Your task to perform on an android device: Search for pizza restaurants on Maps Image 0: 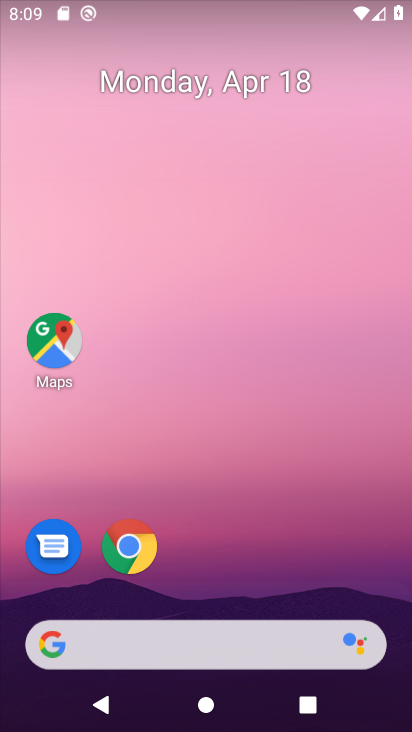
Step 0: click (68, 326)
Your task to perform on an android device: Search for pizza restaurants on Maps Image 1: 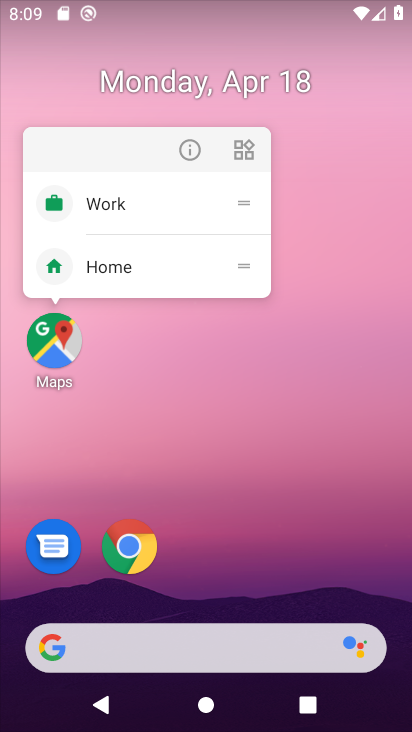
Step 1: click (68, 326)
Your task to perform on an android device: Search for pizza restaurants on Maps Image 2: 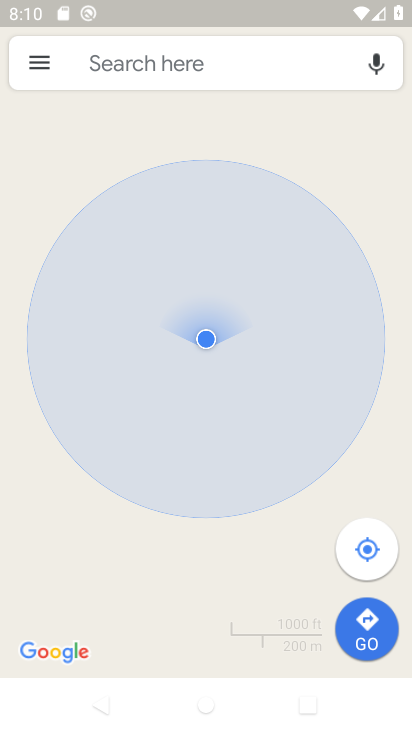
Step 2: click (197, 70)
Your task to perform on an android device: Search for pizza restaurants on Maps Image 3: 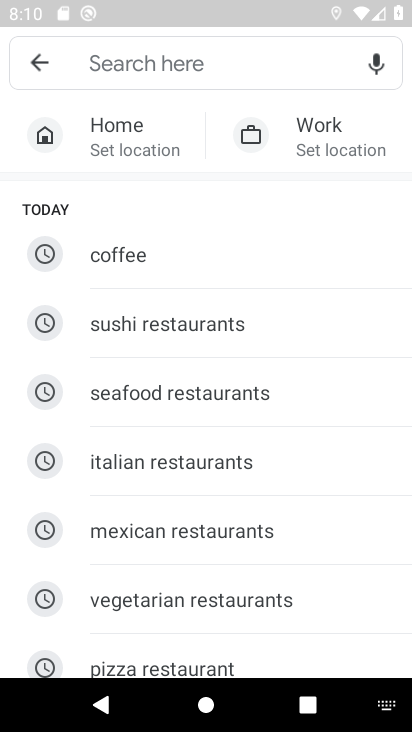
Step 3: type "pizza restaurants"
Your task to perform on an android device: Search for pizza restaurants on Maps Image 4: 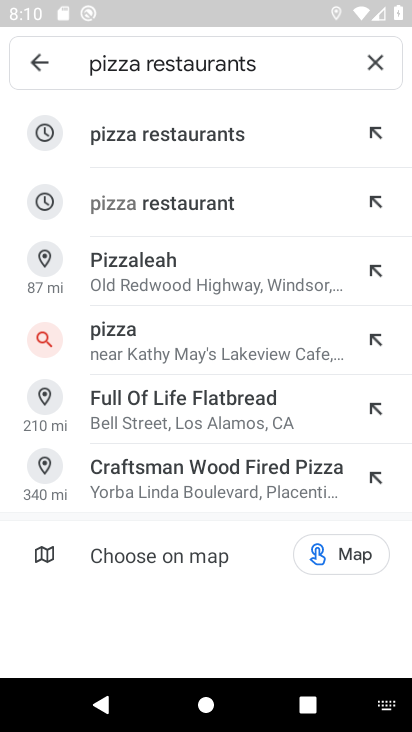
Step 4: click (182, 119)
Your task to perform on an android device: Search for pizza restaurants on Maps Image 5: 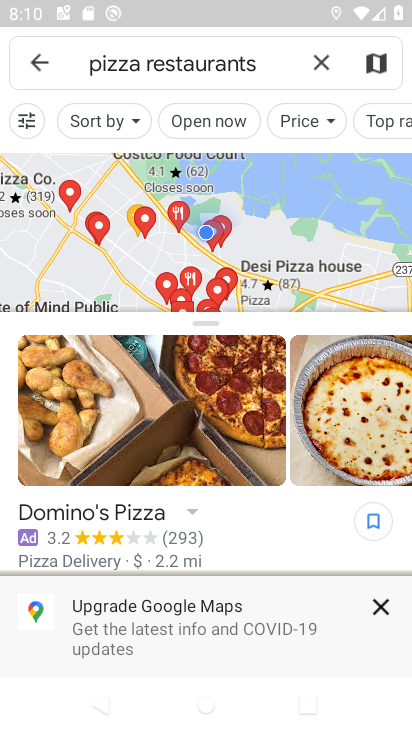
Step 5: task complete